Your task to perform on an android device: Open Maps and search for coffee Image 0: 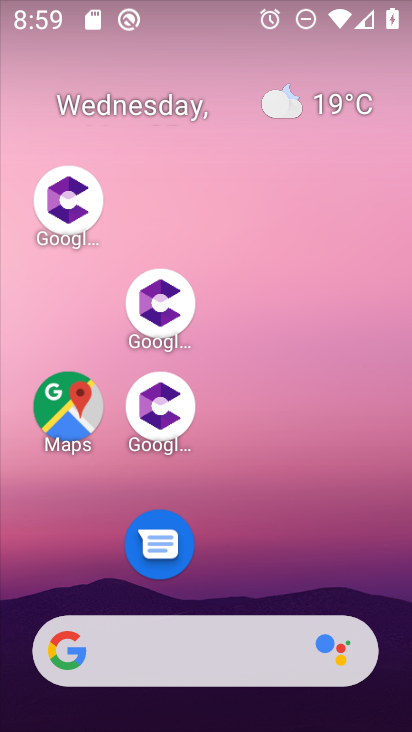
Step 0: click (51, 399)
Your task to perform on an android device: Open Maps and search for coffee Image 1: 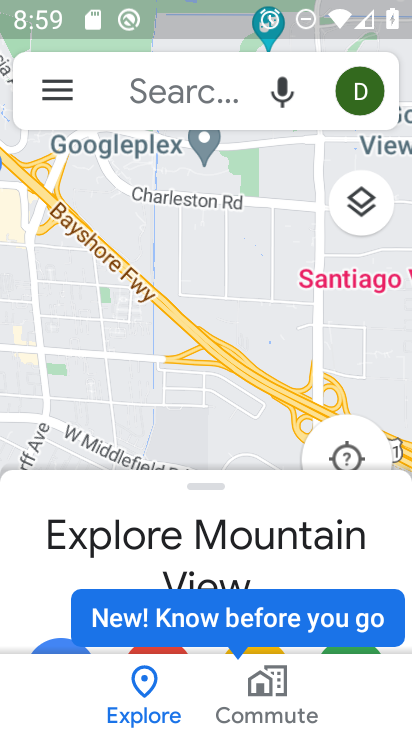
Step 1: click (180, 76)
Your task to perform on an android device: Open Maps and search for coffee Image 2: 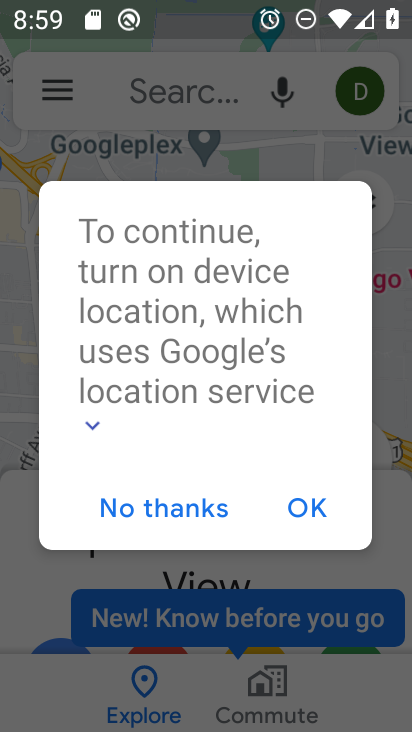
Step 2: click (291, 505)
Your task to perform on an android device: Open Maps and search for coffee Image 3: 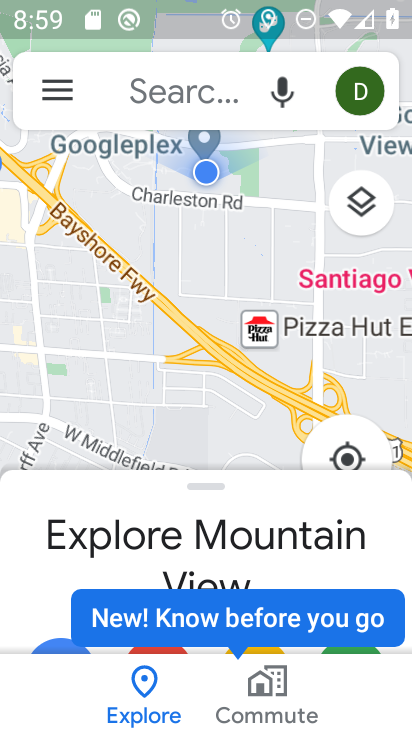
Step 3: click (173, 91)
Your task to perform on an android device: Open Maps and search for coffee Image 4: 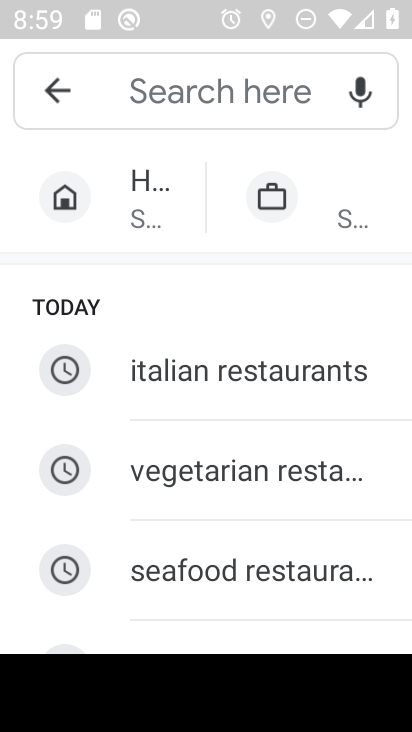
Step 4: type "coffee"
Your task to perform on an android device: Open Maps and search for coffee Image 5: 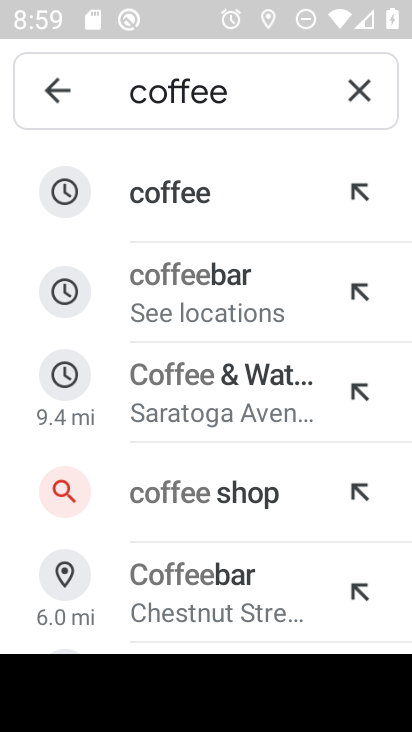
Step 5: click (200, 187)
Your task to perform on an android device: Open Maps and search for coffee Image 6: 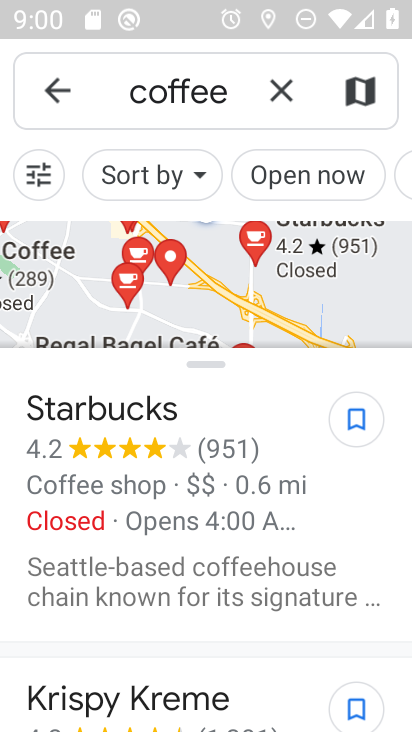
Step 6: task complete